Your task to perform on an android device: Open display settings Image 0: 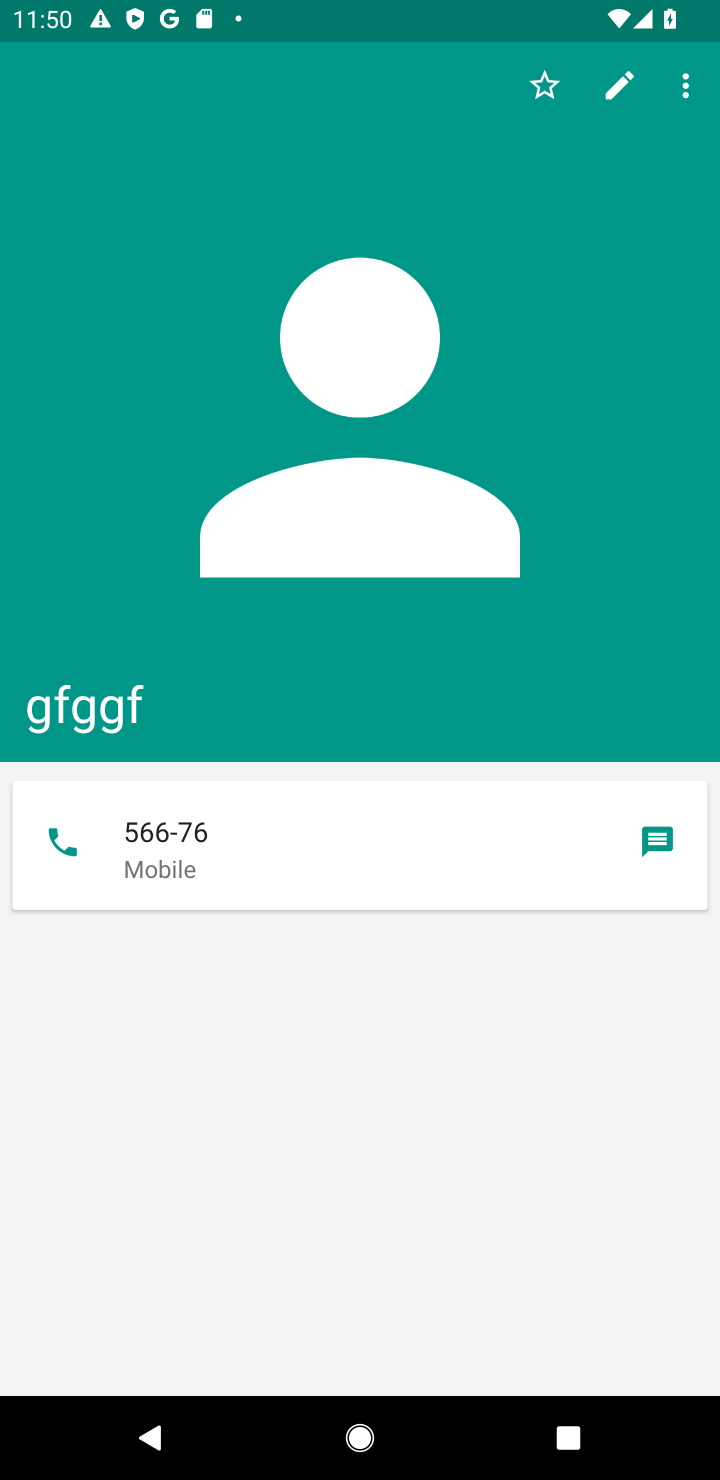
Step 0: press home button
Your task to perform on an android device: Open display settings Image 1: 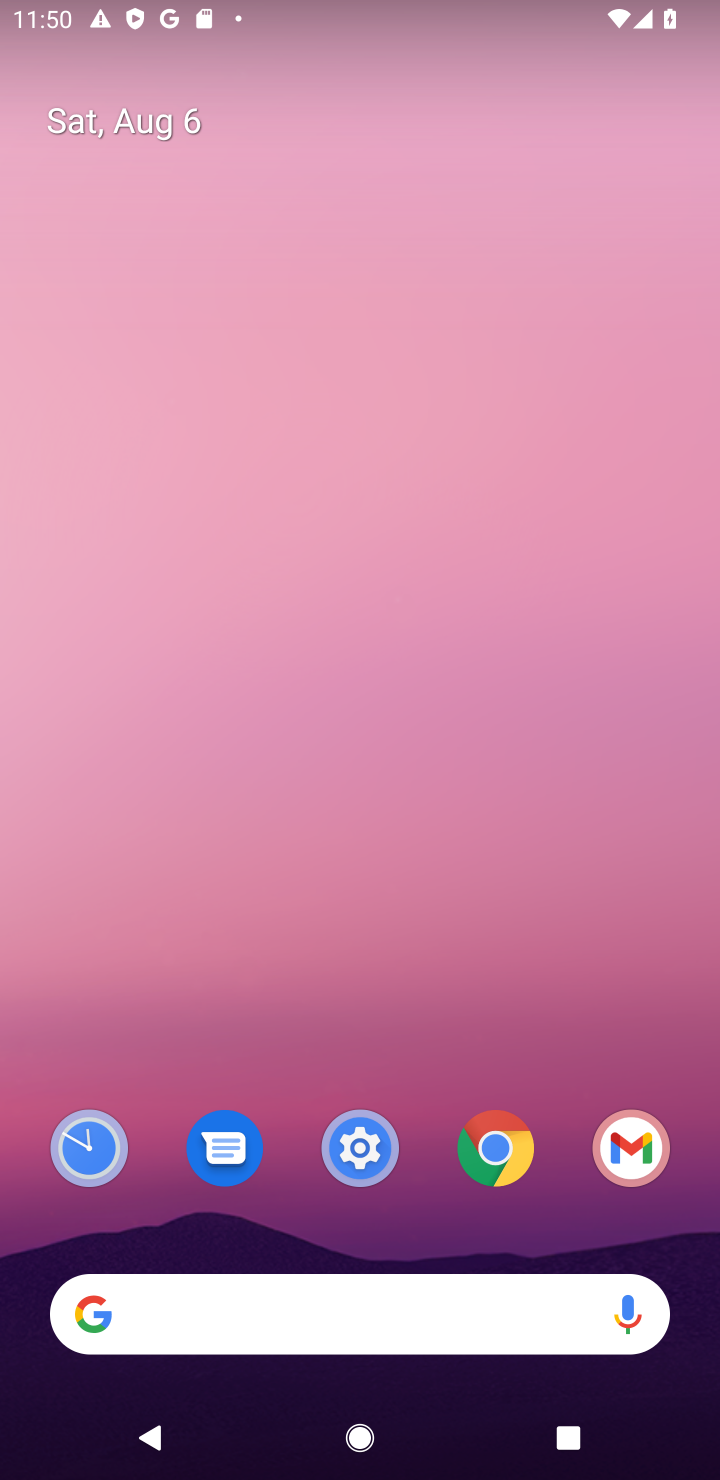
Step 1: drag from (353, 1008) to (457, 57)
Your task to perform on an android device: Open display settings Image 2: 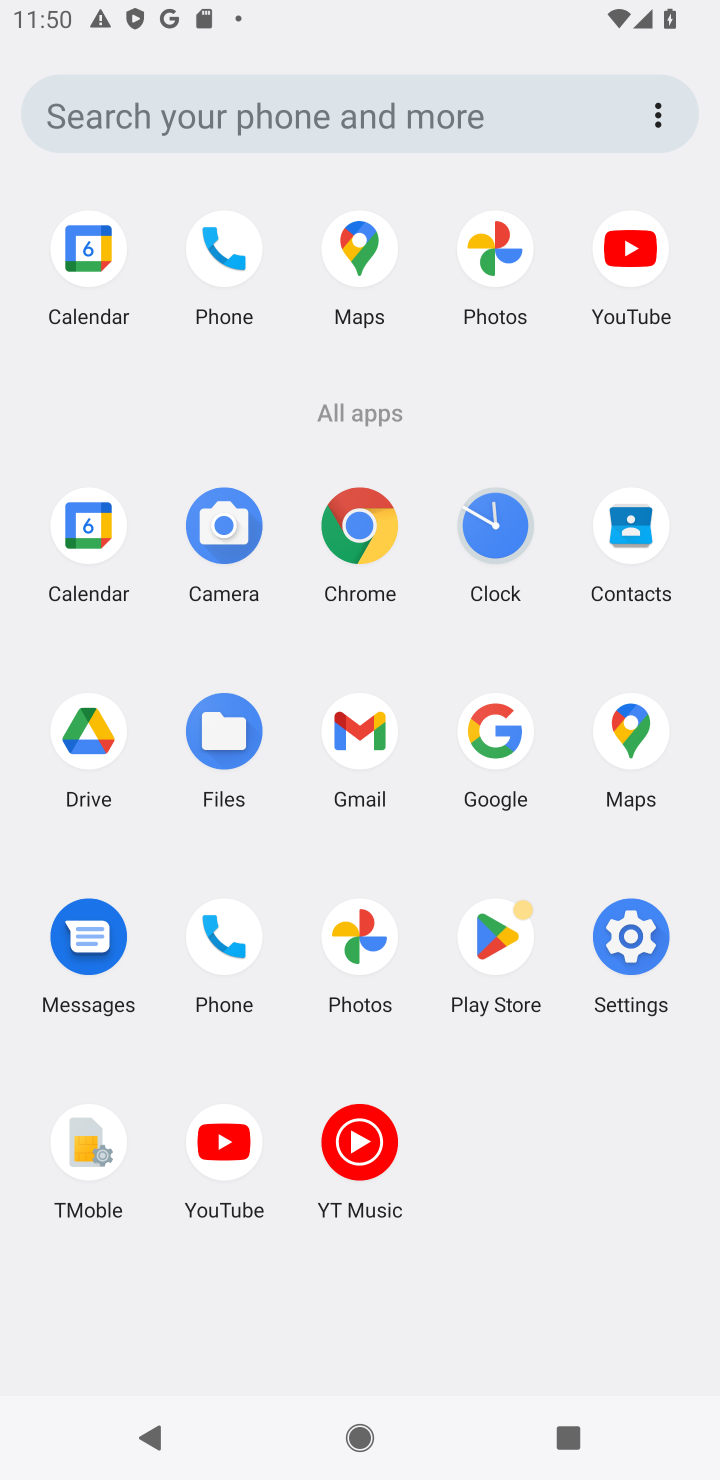
Step 2: click (621, 936)
Your task to perform on an android device: Open display settings Image 3: 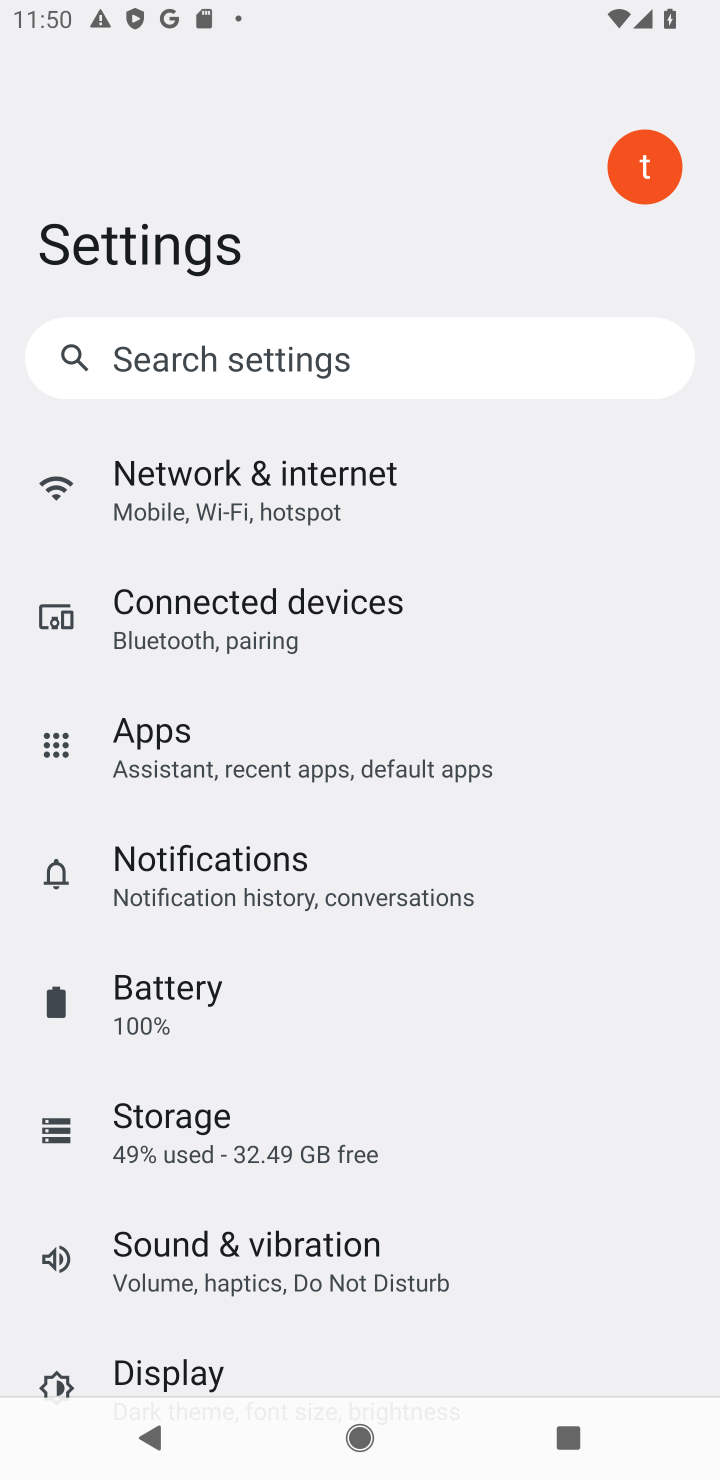
Step 3: click (186, 1365)
Your task to perform on an android device: Open display settings Image 4: 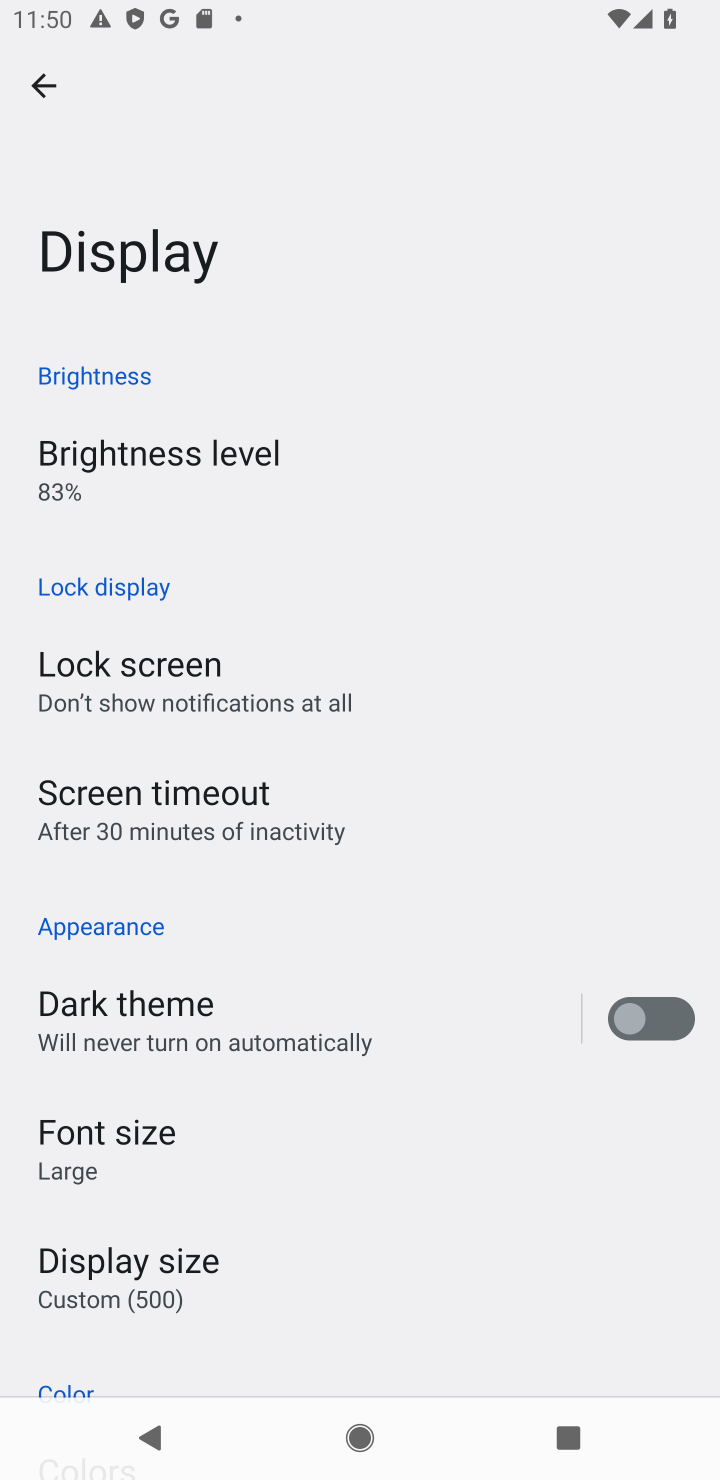
Step 4: task complete